Your task to perform on an android device: turn on the 24-hour format for clock Image 0: 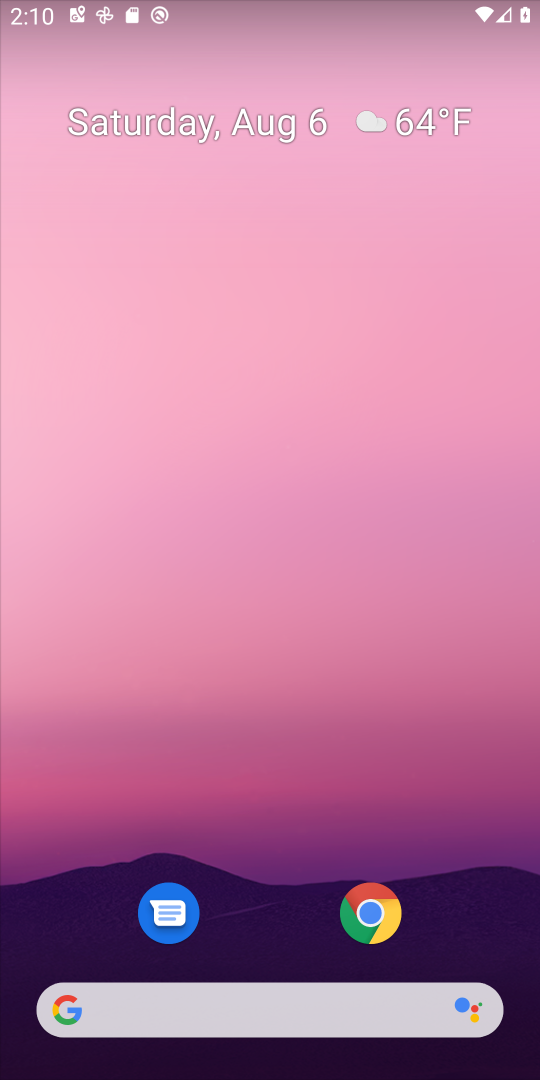
Step 0: press home button
Your task to perform on an android device: turn on the 24-hour format for clock Image 1: 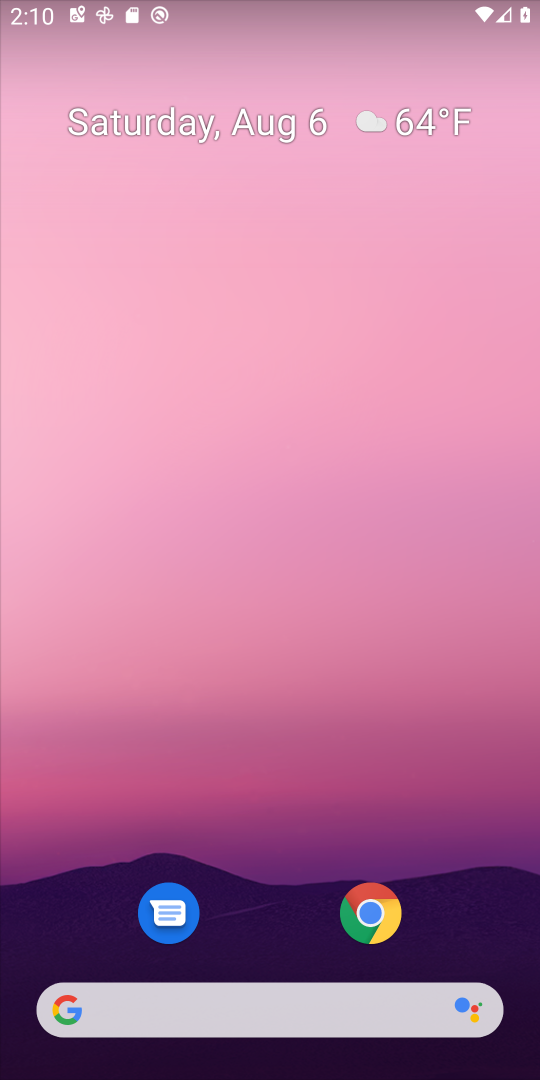
Step 1: drag from (476, 907) to (486, 321)
Your task to perform on an android device: turn on the 24-hour format for clock Image 2: 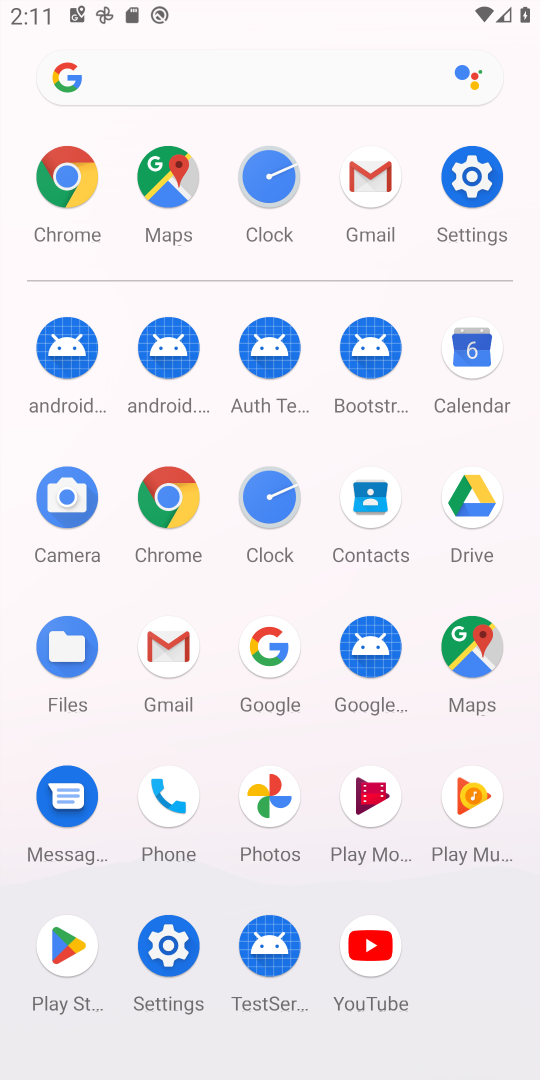
Step 2: click (257, 514)
Your task to perform on an android device: turn on the 24-hour format for clock Image 3: 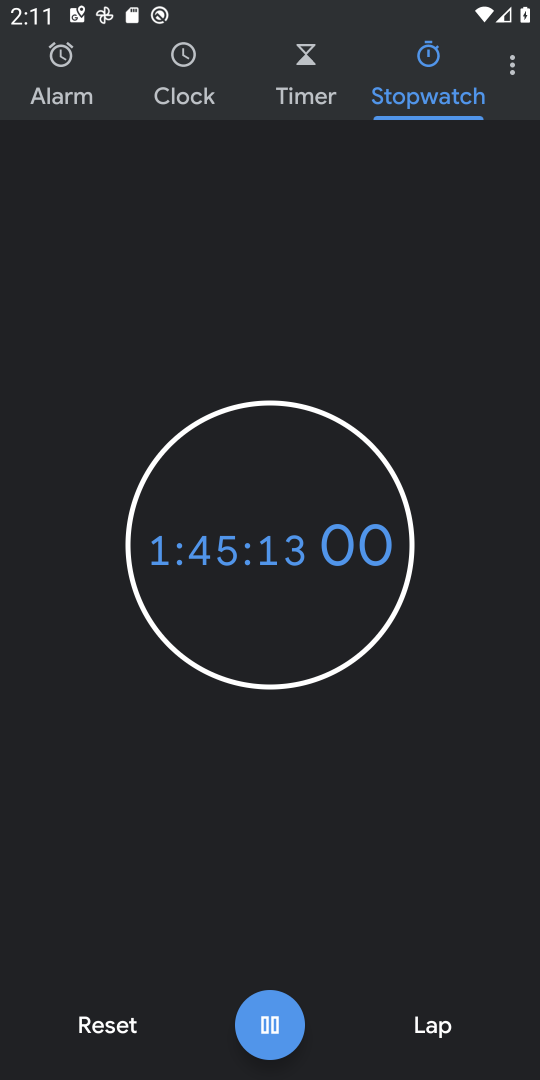
Step 3: click (515, 66)
Your task to perform on an android device: turn on the 24-hour format for clock Image 4: 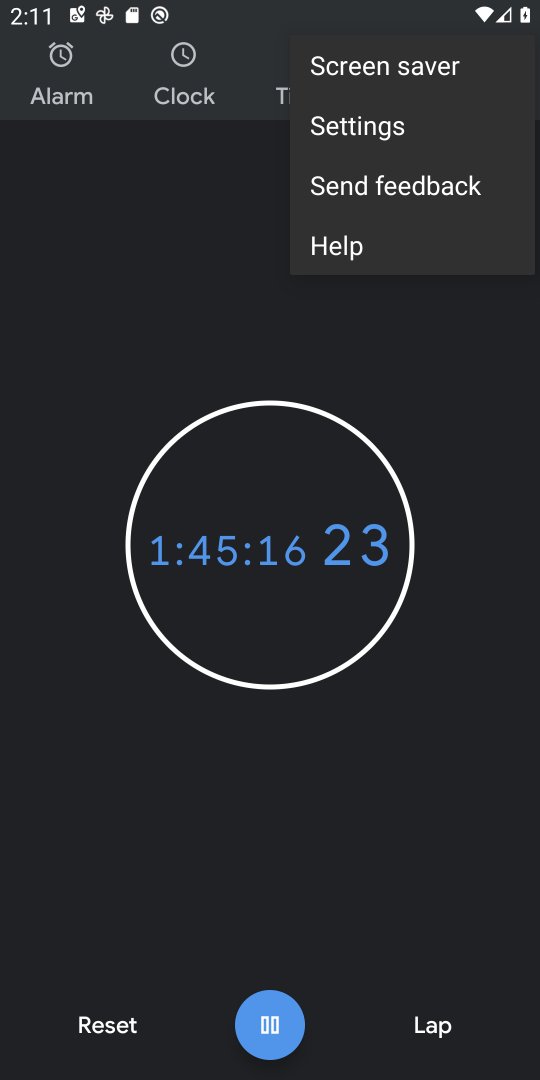
Step 4: click (405, 129)
Your task to perform on an android device: turn on the 24-hour format for clock Image 5: 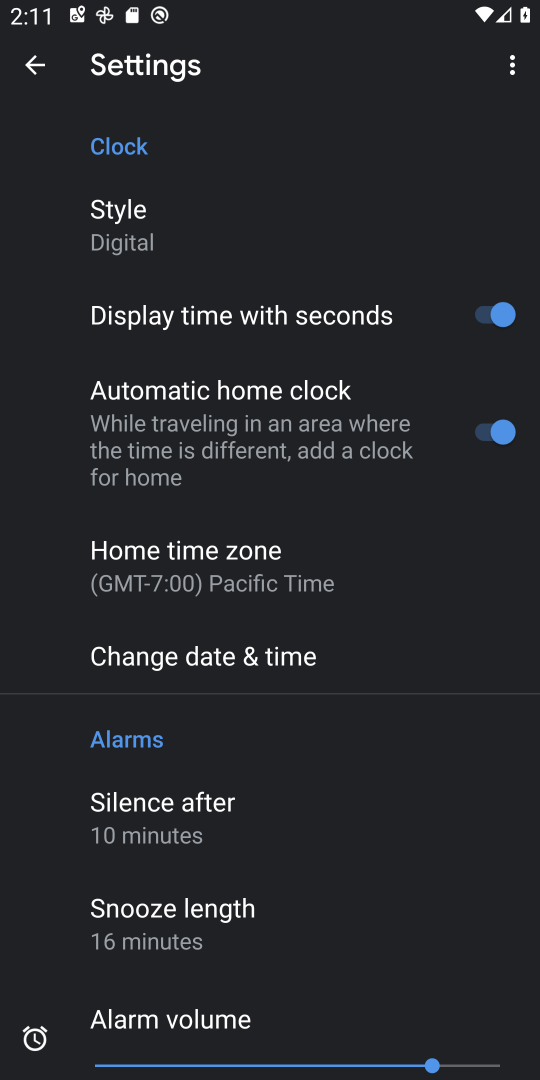
Step 5: drag from (451, 541) to (452, 461)
Your task to perform on an android device: turn on the 24-hour format for clock Image 6: 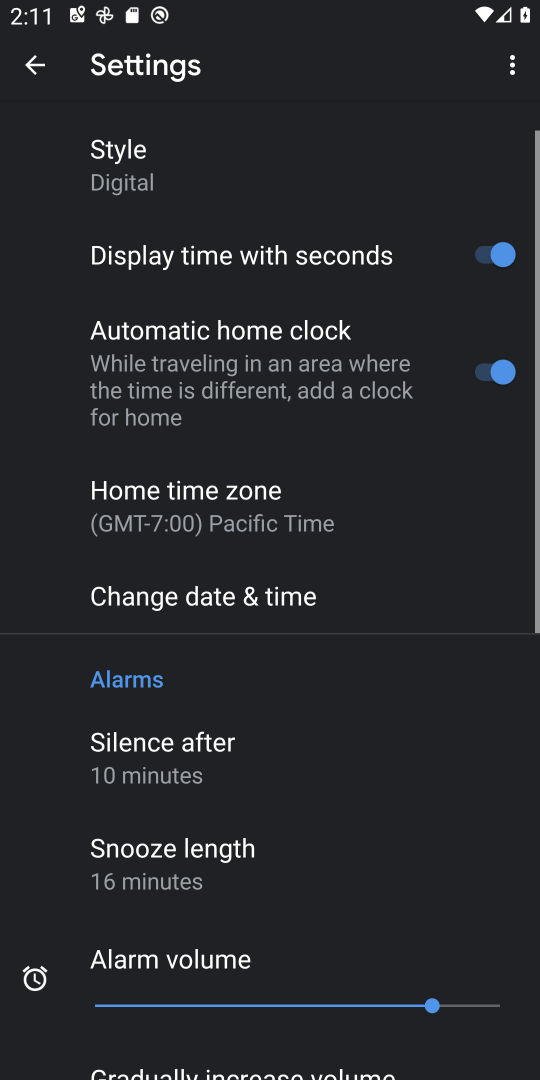
Step 6: drag from (448, 646) to (436, 516)
Your task to perform on an android device: turn on the 24-hour format for clock Image 7: 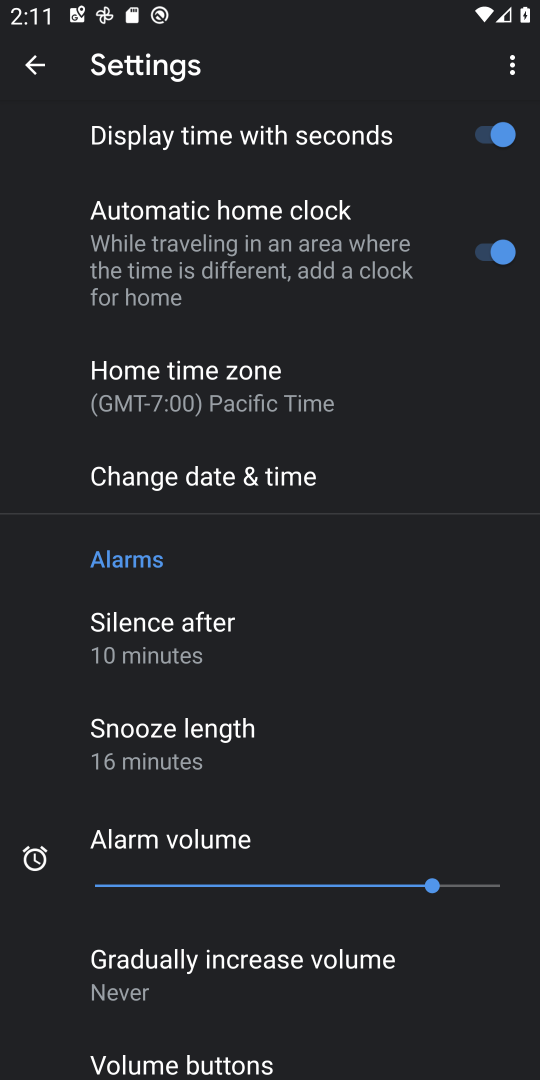
Step 7: drag from (428, 631) to (414, 493)
Your task to perform on an android device: turn on the 24-hour format for clock Image 8: 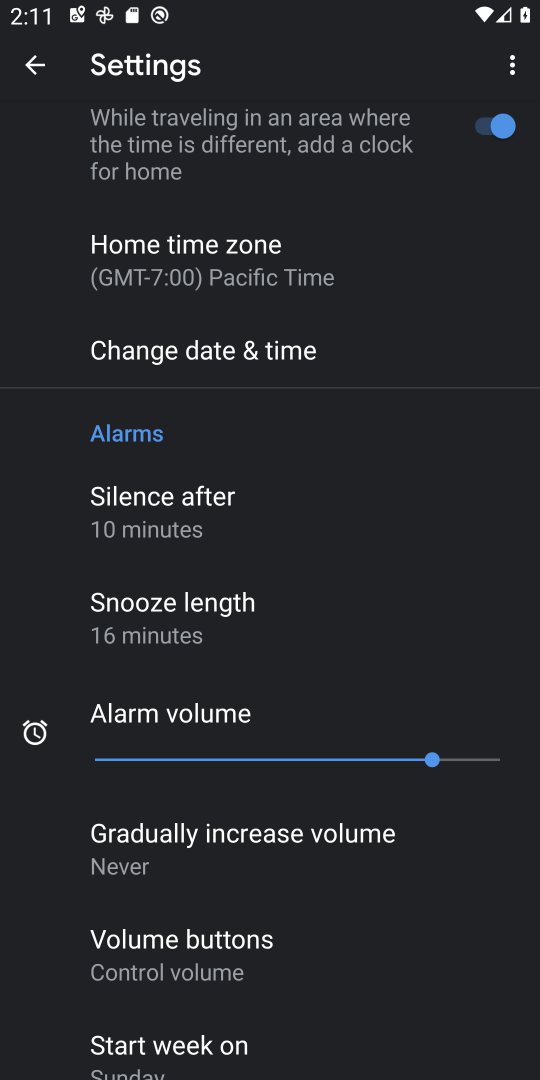
Step 8: click (363, 349)
Your task to perform on an android device: turn on the 24-hour format for clock Image 9: 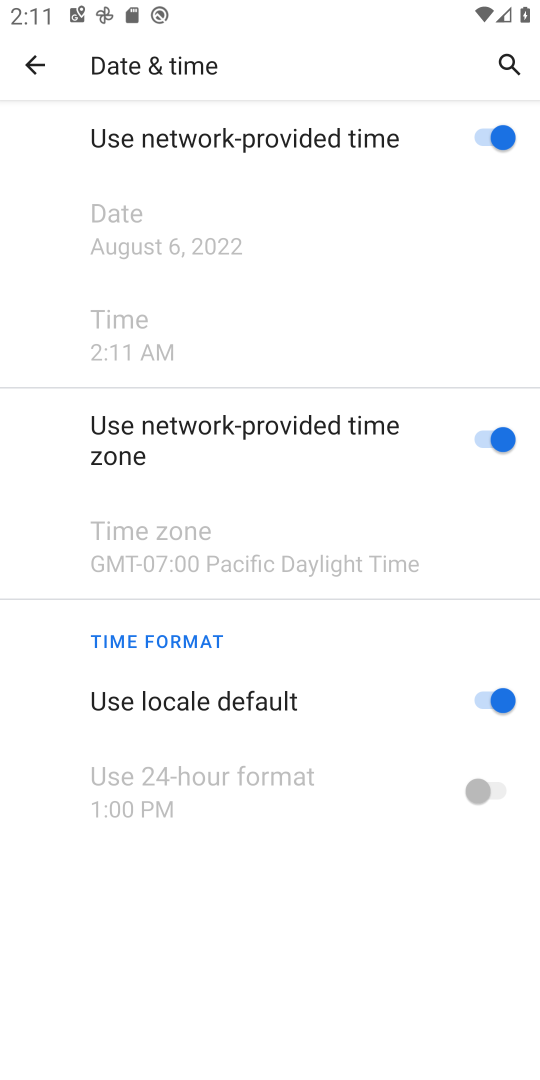
Step 9: click (479, 703)
Your task to perform on an android device: turn on the 24-hour format for clock Image 10: 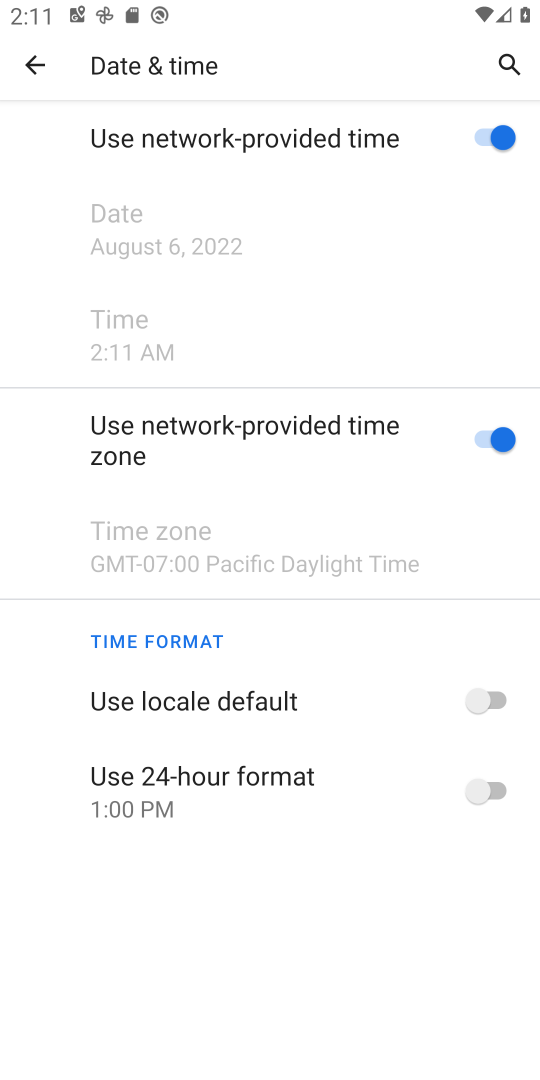
Step 10: click (469, 790)
Your task to perform on an android device: turn on the 24-hour format for clock Image 11: 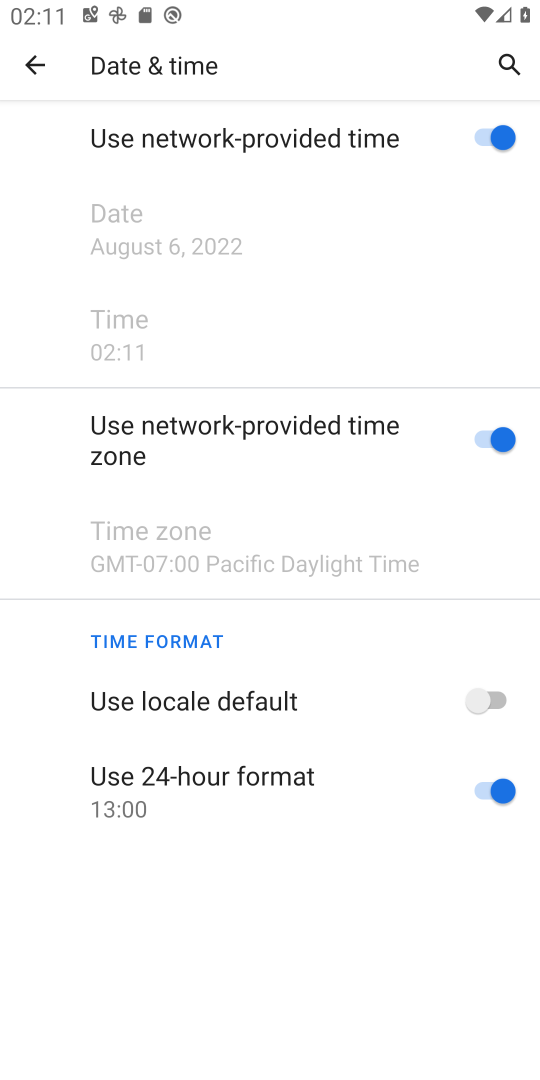
Step 11: task complete